Your task to perform on an android device: Open wifi settings Image 0: 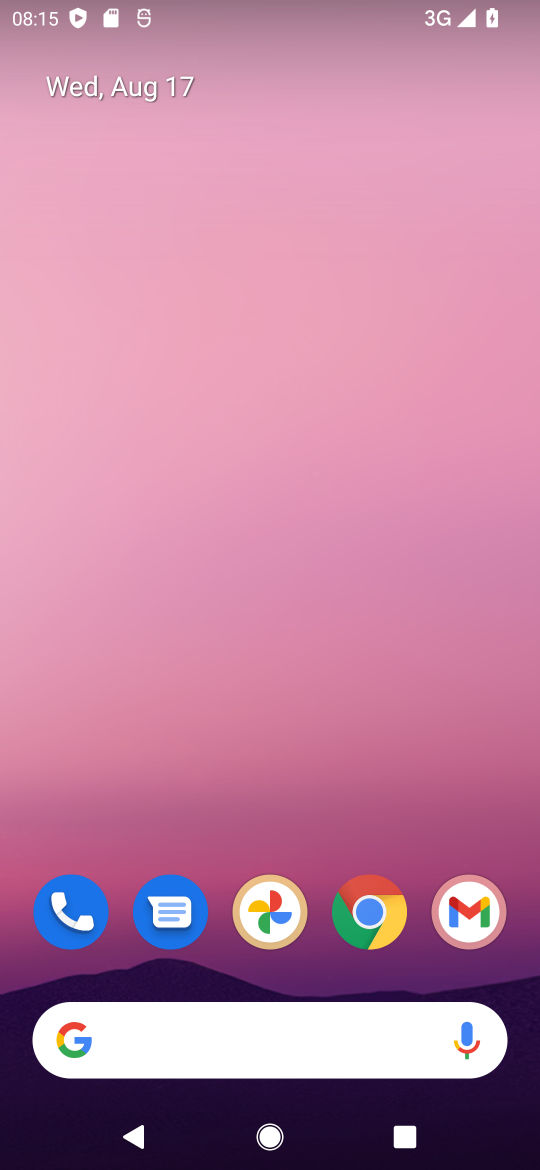
Step 0: drag from (265, 1011) to (213, 105)
Your task to perform on an android device: Open wifi settings Image 1: 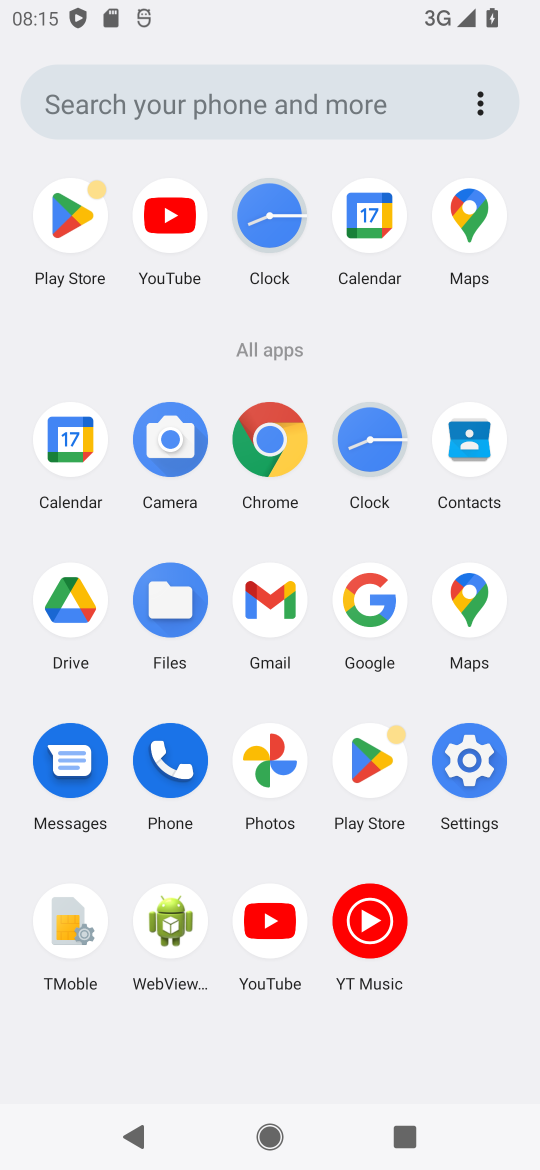
Step 1: click (467, 756)
Your task to perform on an android device: Open wifi settings Image 2: 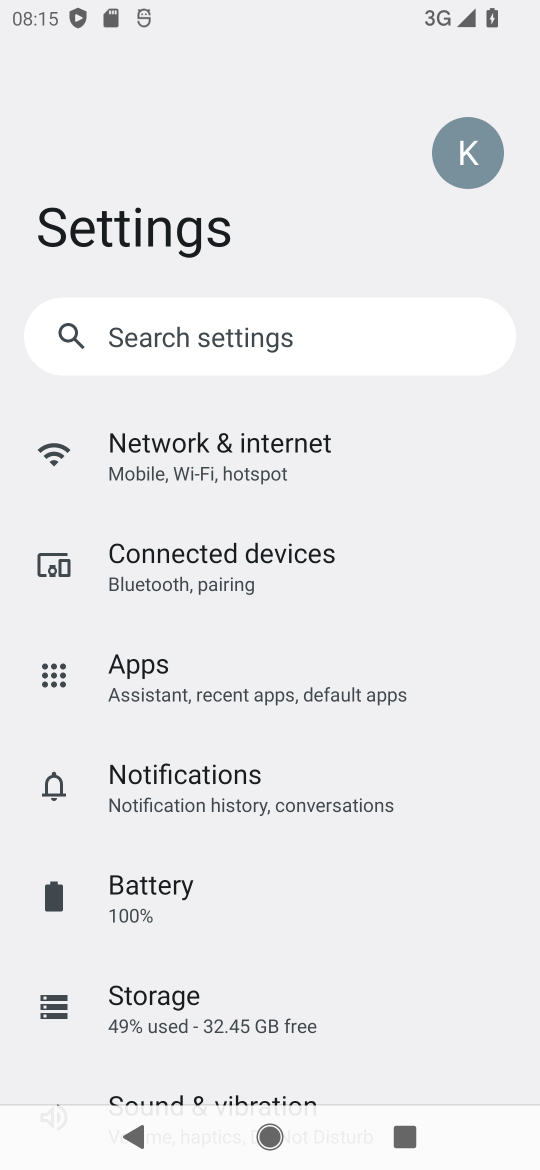
Step 2: click (116, 454)
Your task to perform on an android device: Open wifi settings Image 3: 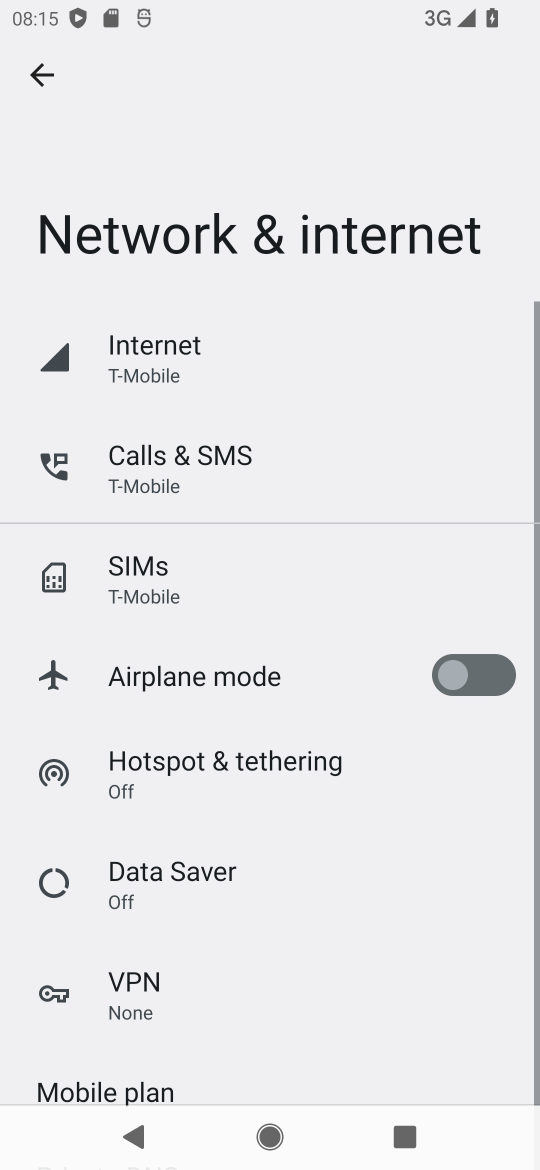
Step 3: click (103, 361)
Your task to perform on an android device: Open wifi settings Image 4: 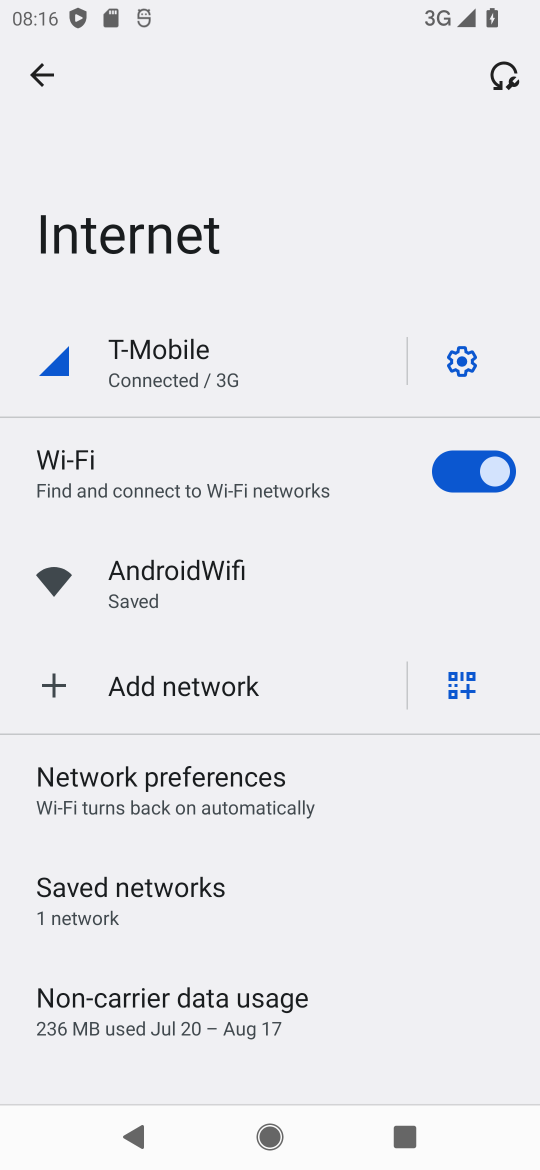
Step 4: click (466, 356)
Your task to perform on an android device: Open wifi settings Image 5: 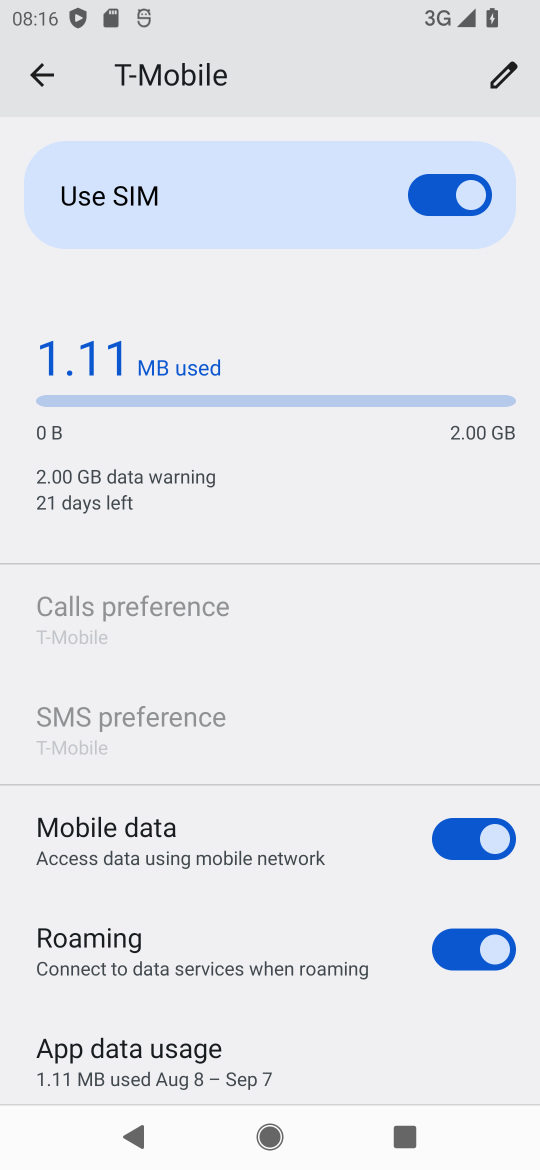
Step 5: click (25, 71)
Your task to perform on an android device: Open wifi settings Image 6: 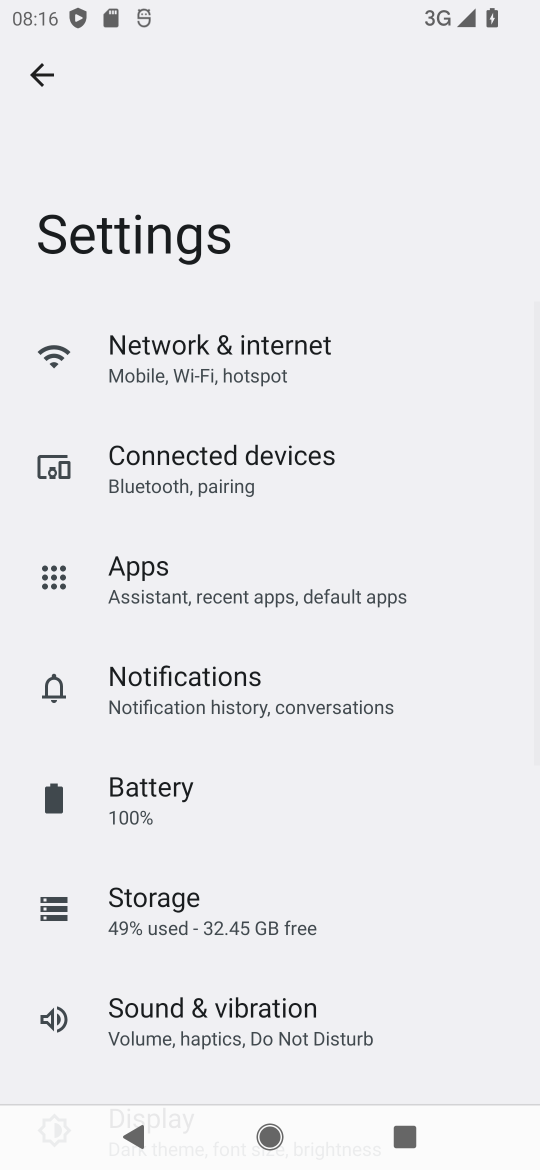
Step 6: click (150, 352)
Your task to perform on an android device: Open wifi settings Image 7: 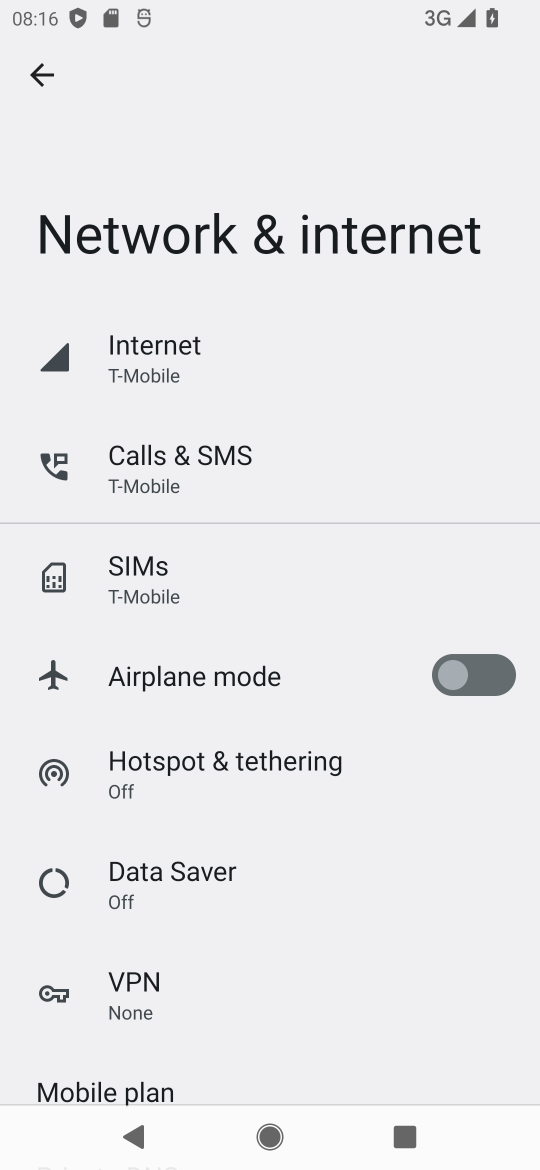
Step 7: click (132, 342)
Your task to perform on an android device: Open wifi settings Image 8: 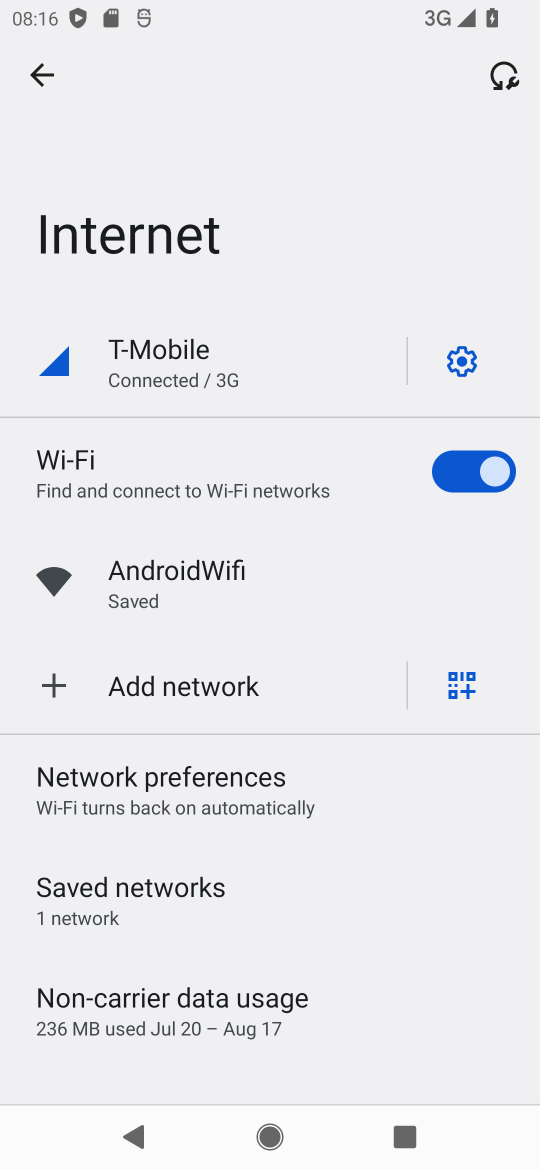
Step 8: click (176, 475)
Your task to perform on an android device: Open wifi settings Image 9: 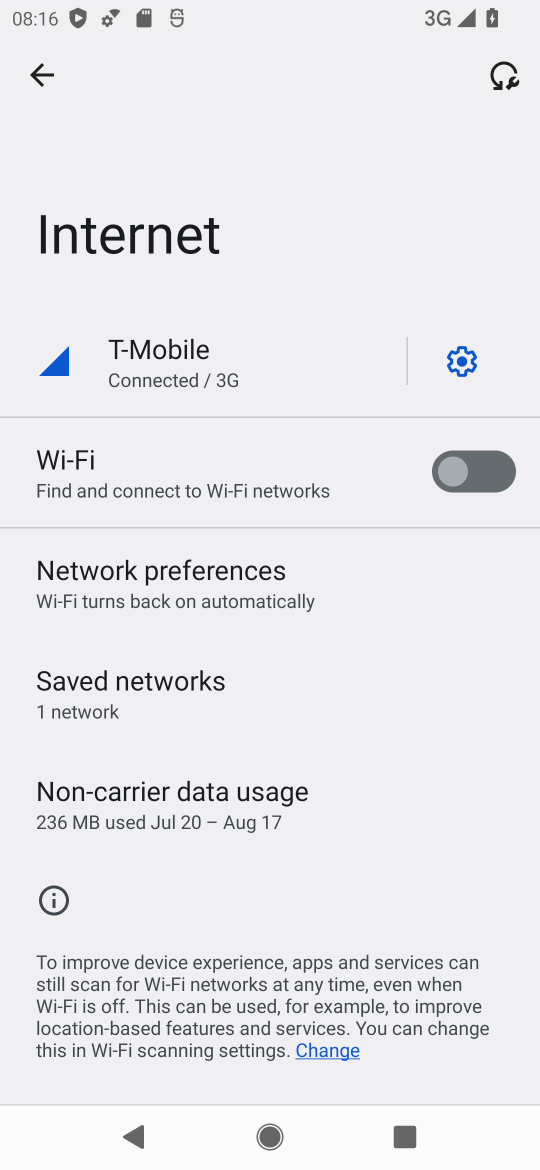
Step 9: click (457, 463)
Your task to perform on an android device: Open wifi settings Image 10: 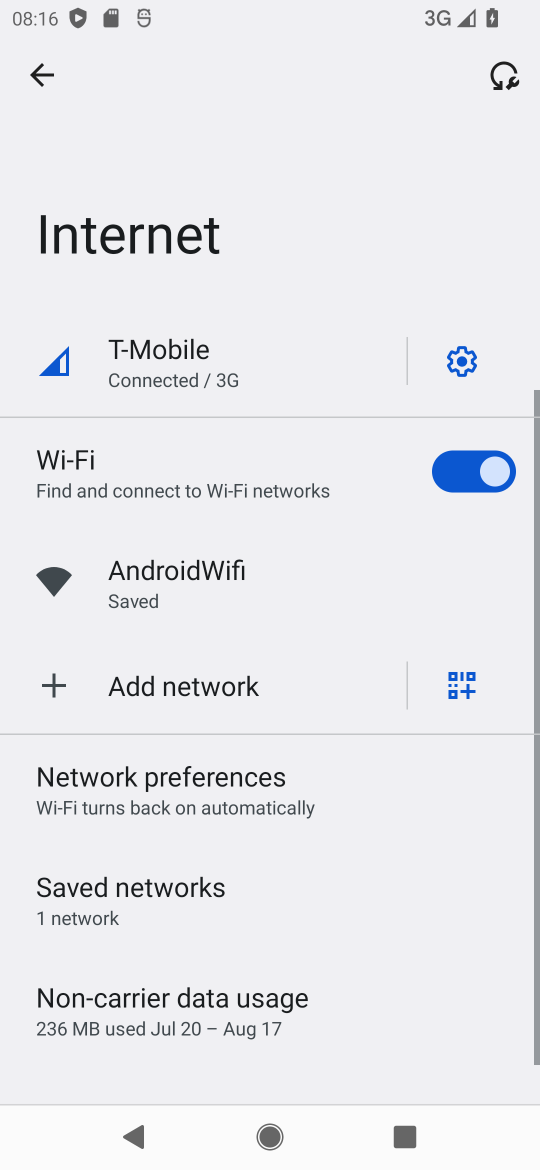
Step 10: drag from (179, 815) to (151, 460)
Your task to perform on an android device: Open wifi settings Image 11: 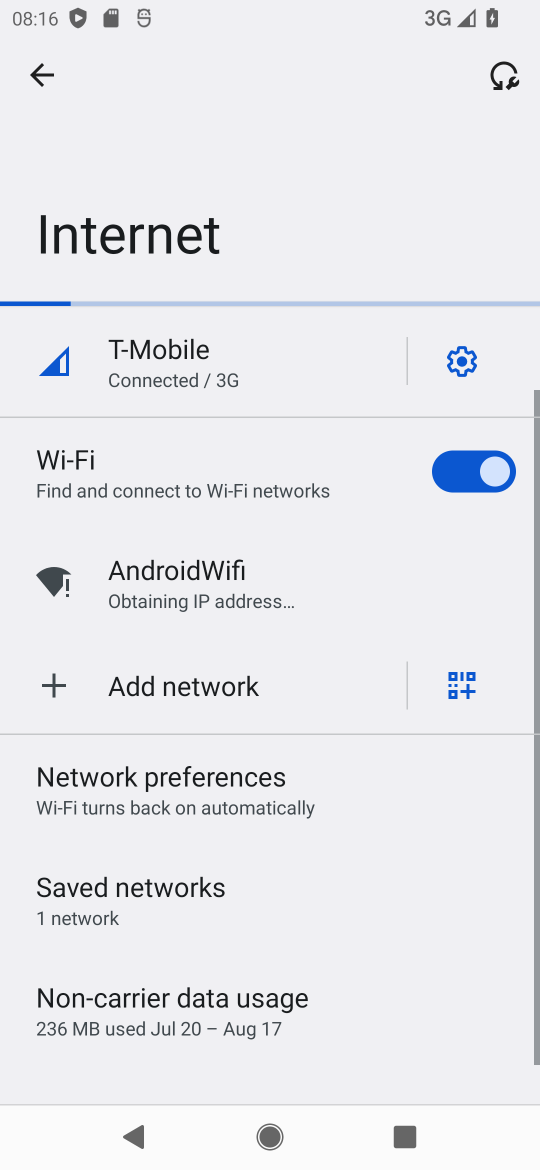
Step 11: click (165, 566)
Your task to perform on an android device: Open wifi settings Image 12: 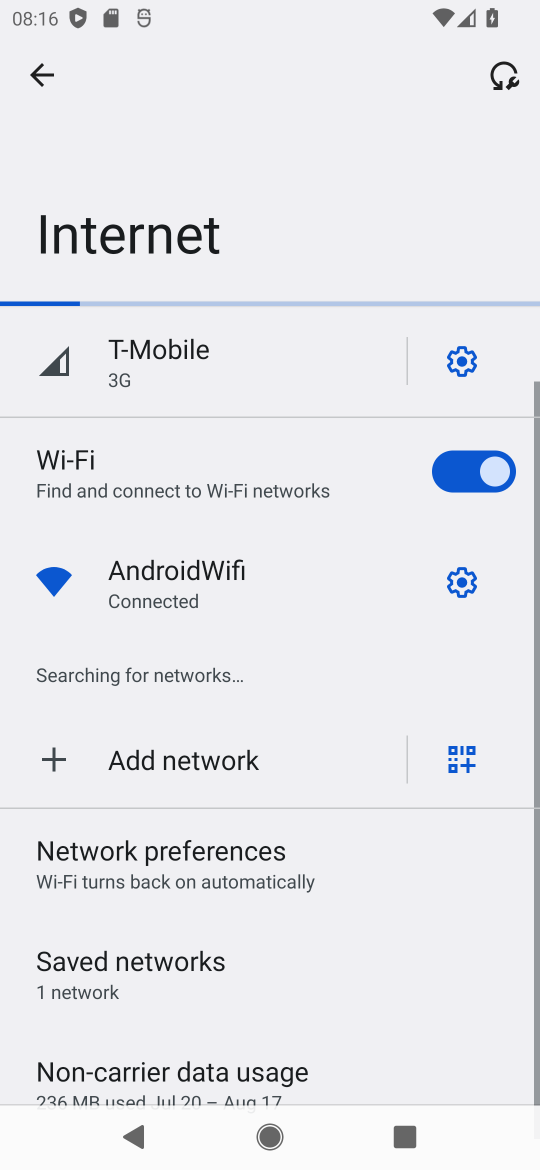
Step 12: click (471, 571)
Your task to perform on an android device: Open wifi settings Image 13: 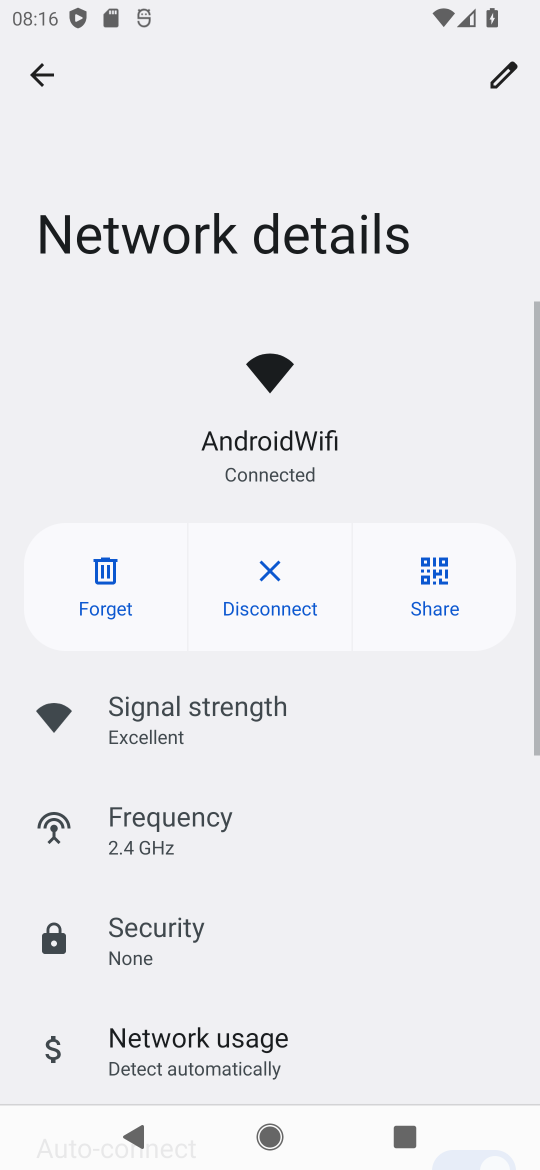
Step 13: task complete